Your task to perform on an android device: change keyboard looks Image 0: 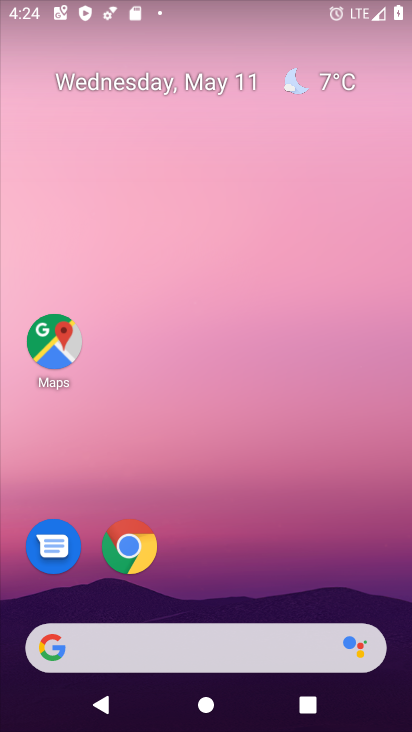
Step 0: drag from (220, 628) to (306, 26)
Your task to perform on an android device: change keyboard looks Image 1: 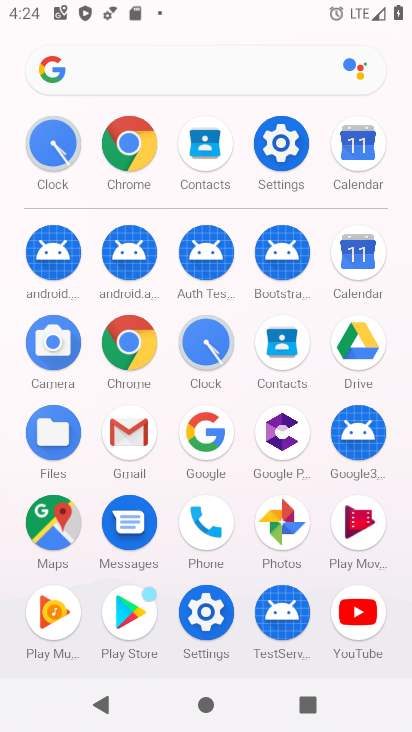
Step 1: click (287, 154)
Your task to perform on an android device: change keyboard looks Image 2: 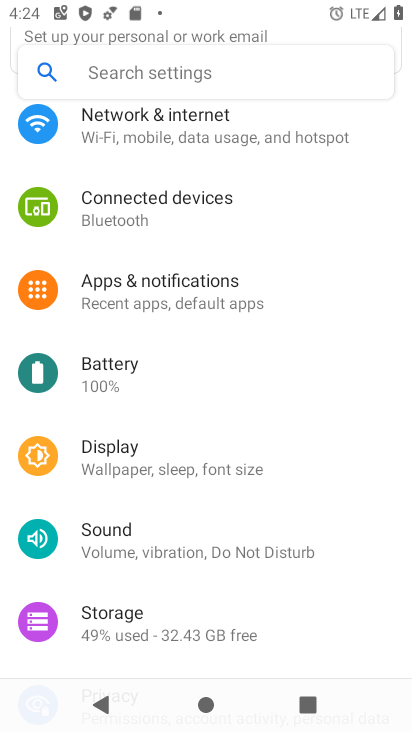
Step 2: drag from (249, 649) to (339, 70)
Your task to perform on an android device: change keyboard looks Image 3: 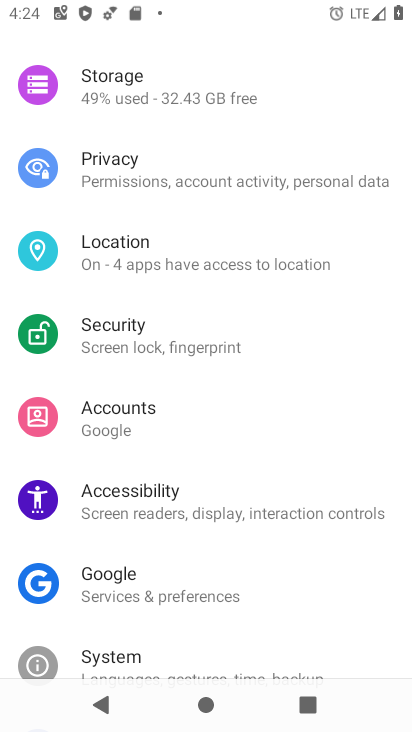
Step 3: drag from (242, 640) to (303, 208)
Your task to perform on an android device: change keyboard looks Image 4: 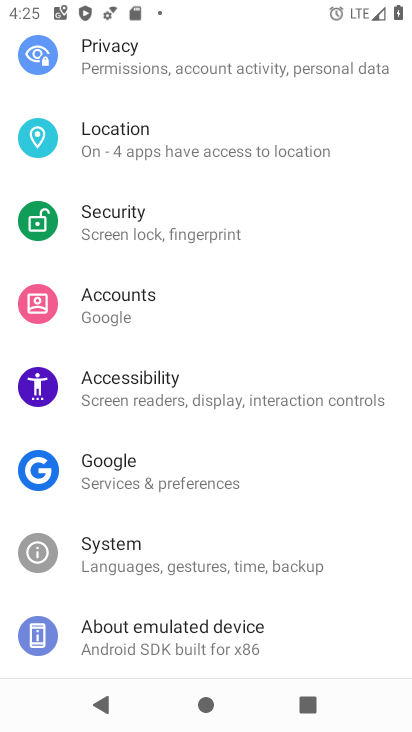
Step 4: click (263, 556)
Your task to perform on an android device: change keyboard looks Image 5: 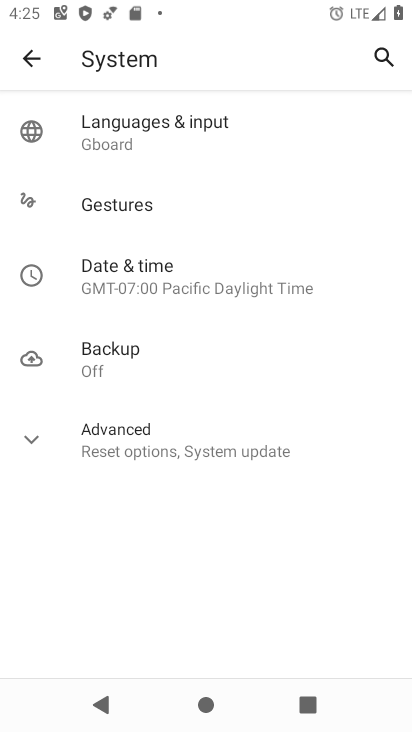
Step 5: click (226, 141)
Your task to perform on an android device: change keyboard looks Image 6: 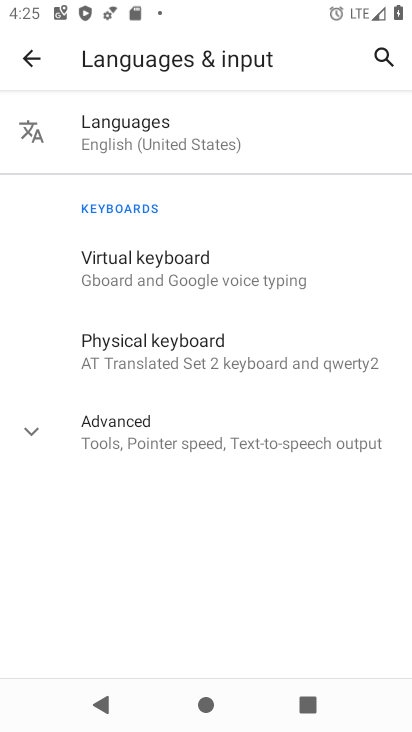
Step 6: click (225, 276)
Your task to perform on an android device: change keyboard looks Image 7: 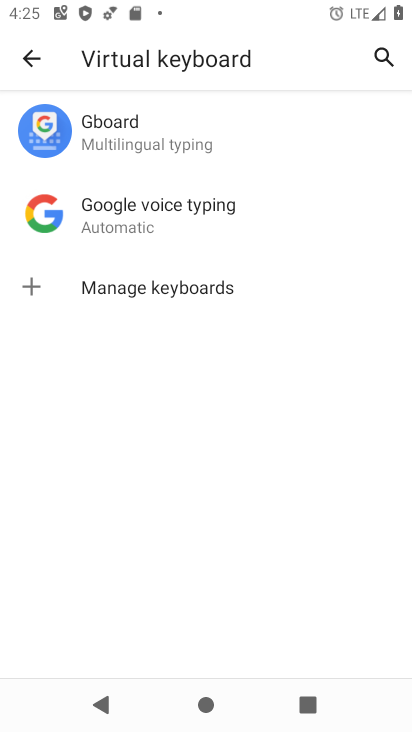
Step 7: click (251, 136)
Your task to perform on an android device: change keyboard looks Image 8: 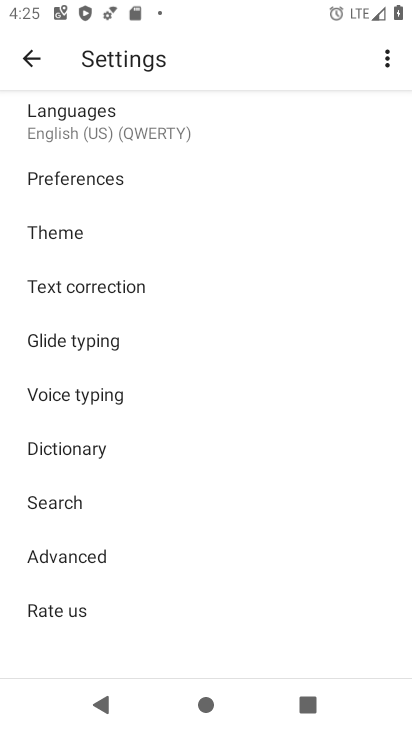
Step 8: drag from (156, 238) to (20, 238)
Your task to perform on an android device: change keyboard looks Image 9: 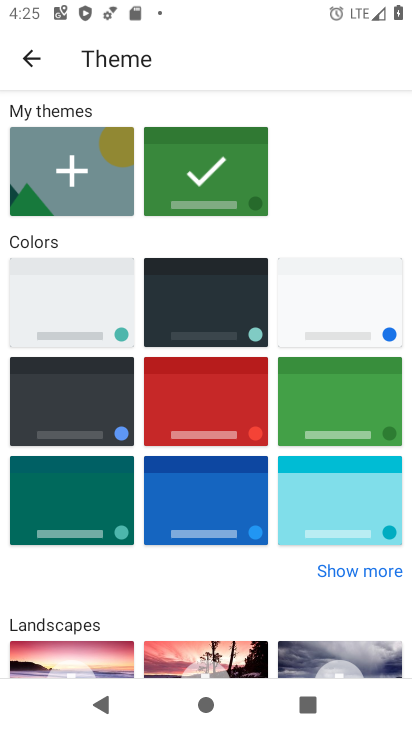
Step 9: click (226, 508)
Your task to perform on an android device: change keyboard looks Image 10: 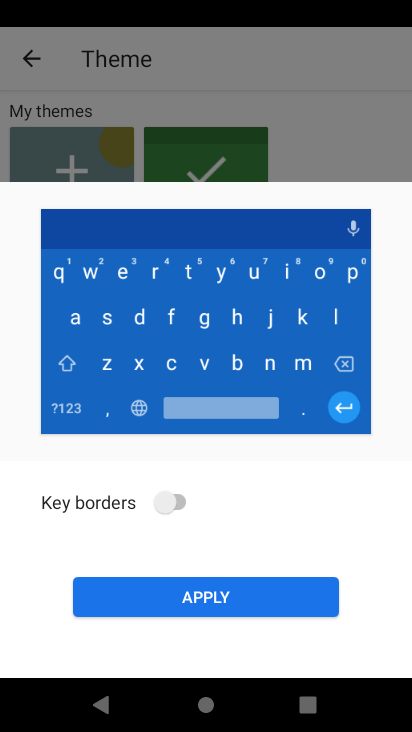
Step 10: click (223, 585)
Your task to perform on an android device: change keyboard looks Image 11: 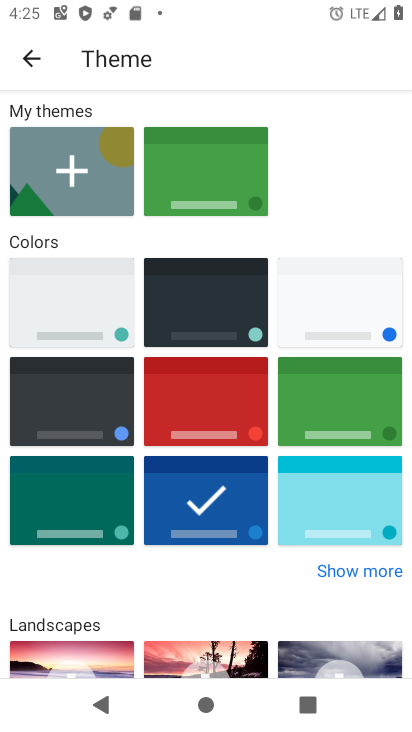
Step 11: task complete